Your task to perform on an android device: toggle pop-ups in chrome Image 0: 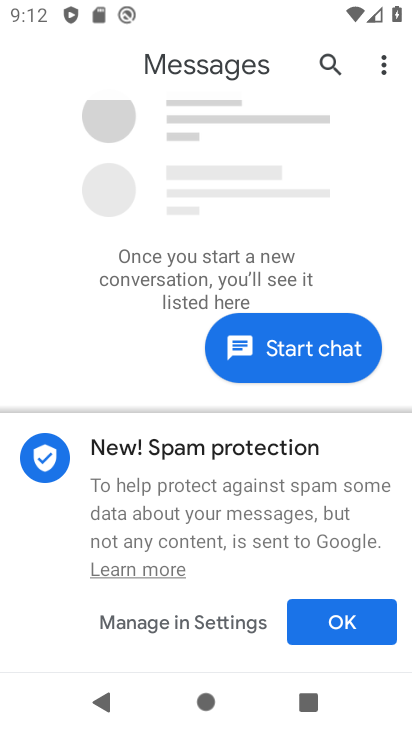
Step 0: press home button
Your task to perform on an android device: toggle pop-ups in chrome Image 1: 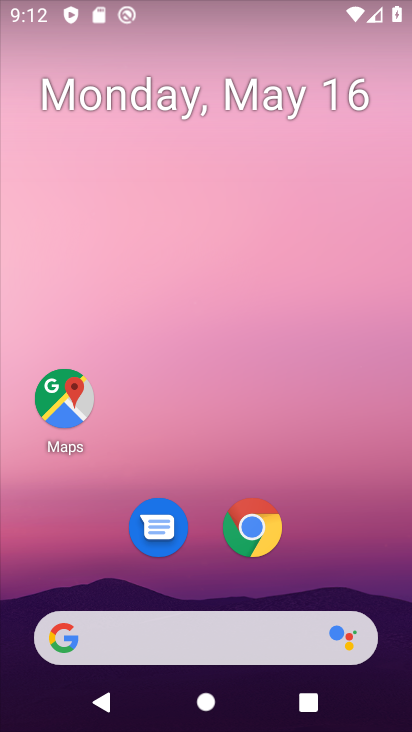
Step 1: click (254, 528)
Your task to perform on an android device: toggle pop-ups in chrome Image 2: 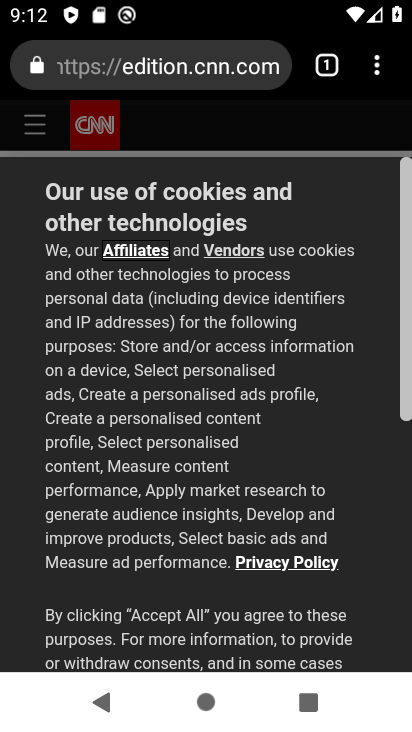
Step 2: click (379, 68)
Your task to perform on an android device: toggle pop-ups in chrome Image 3: 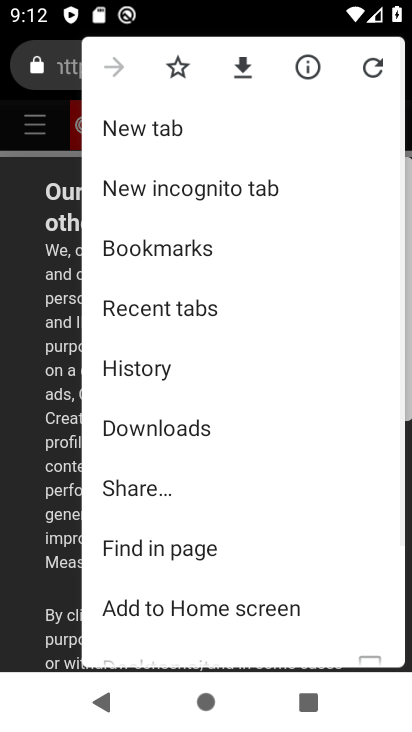
Step 3: drag from (190, 571) to (195, 142)
Your task to perform on an android device: toggle pop-ups in chrome Image 4: 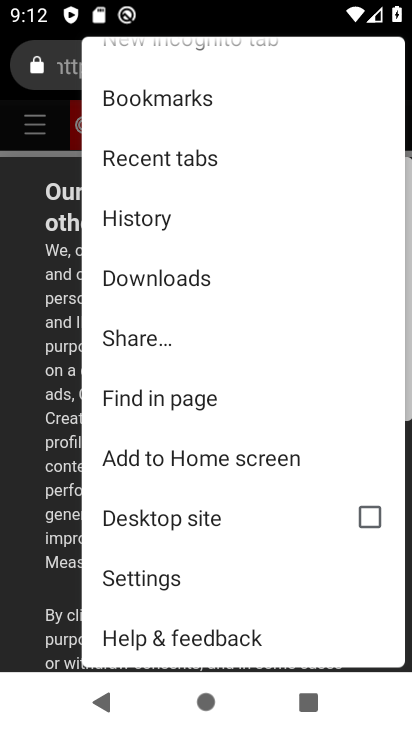
Step 4: click (130, 576)
Your task to perform on an android device: toggle pop-ups in chrome Image 5: 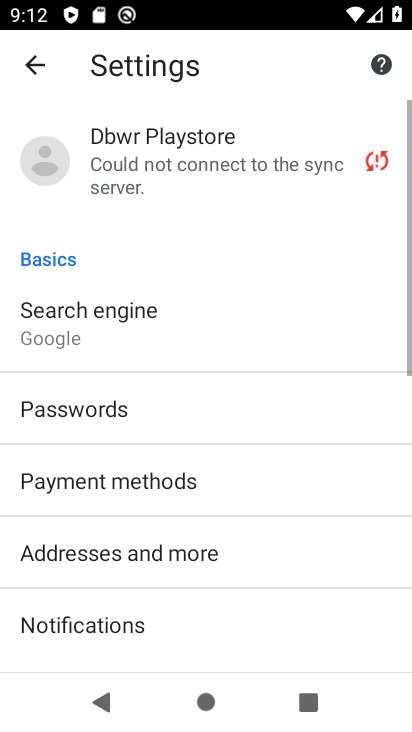
Step 5: drag from (227, 588) to (219, 0)
Your task to perform on an android device: toggle pop-ups in chrome Image 6: 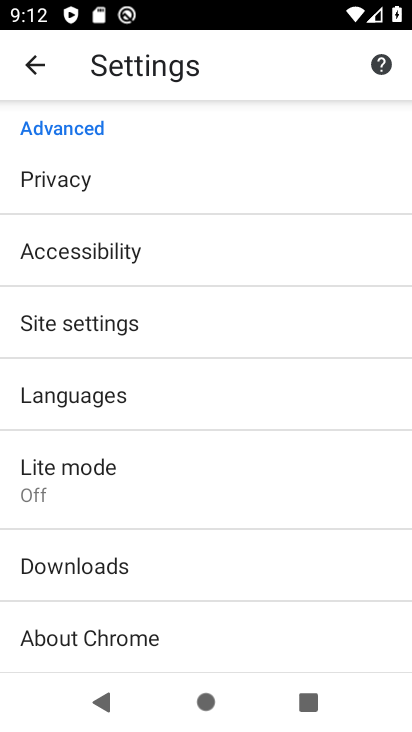
Step 6: click (91, 326)
Your task to perform on an android device: toggle pop-ups in chrome Image 7: 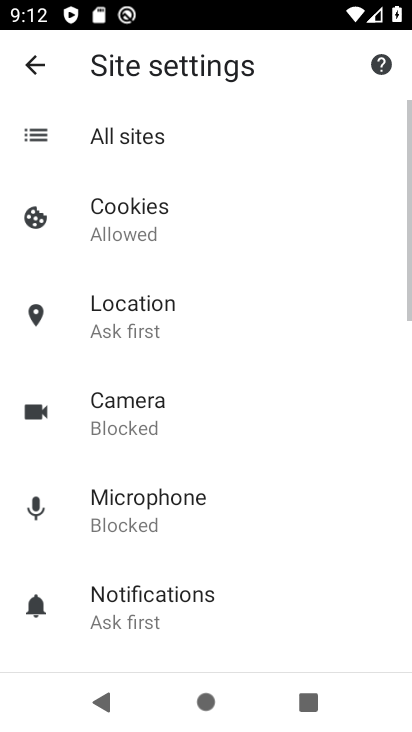
Step 7: drag from (234, 584) to (221, 280)
Your task to perform on an android device: toggle pop-ups in chrome Image 8: 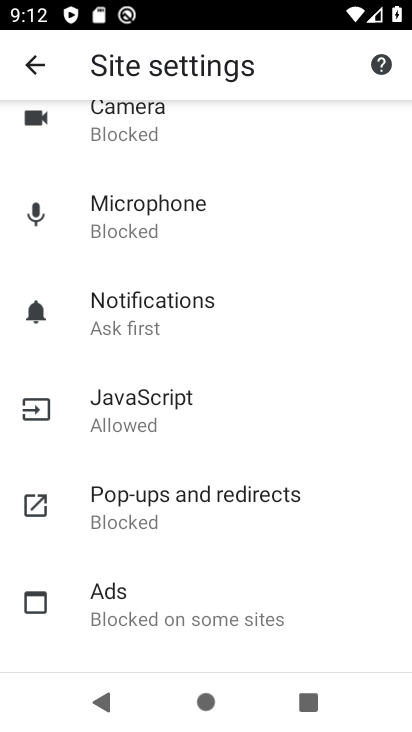
Step 8: click (131, 498)
Your task to perform on an android device: toggle pop-ups in chrome Image 9: 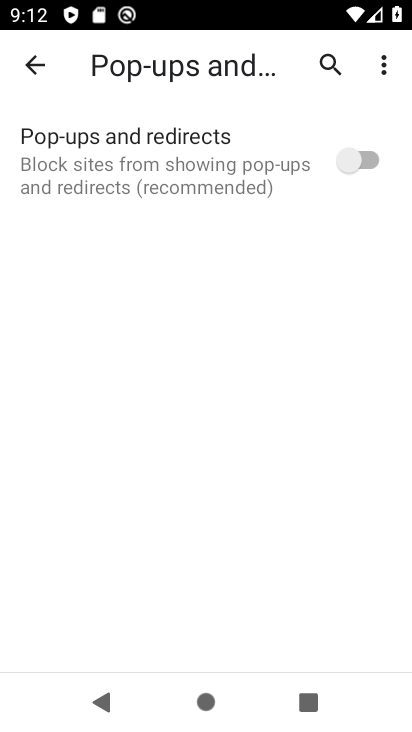
Step 9: click (345, 156)
Your task to perform on an android device: toggle pop-ups in chrome Image 10: 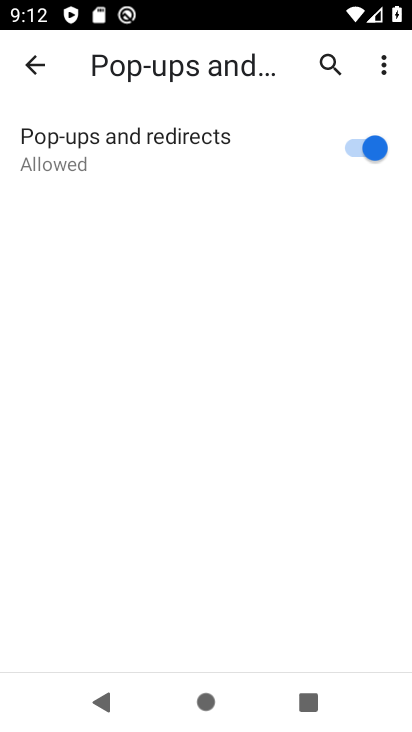
Step 10: task complete